Your task to perform on an android device: open a bookmark in the chrome app Image 0: 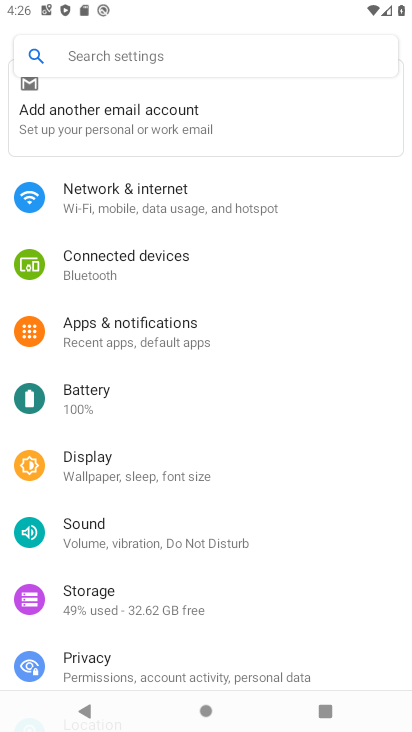
Step 0: press home button
Your task to perform on an android device: open a bookmark in the chrome app Image 1: 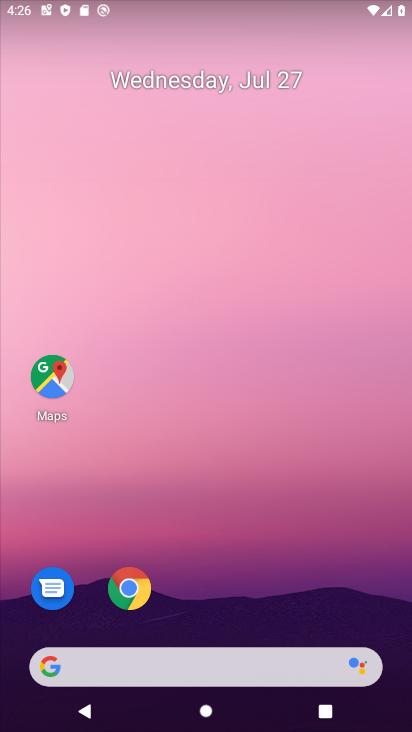
Step 1: drag from (243, 719) to (243, 265)
Your task to perform on an android device: open a bookmark in the chrome app Image 2: 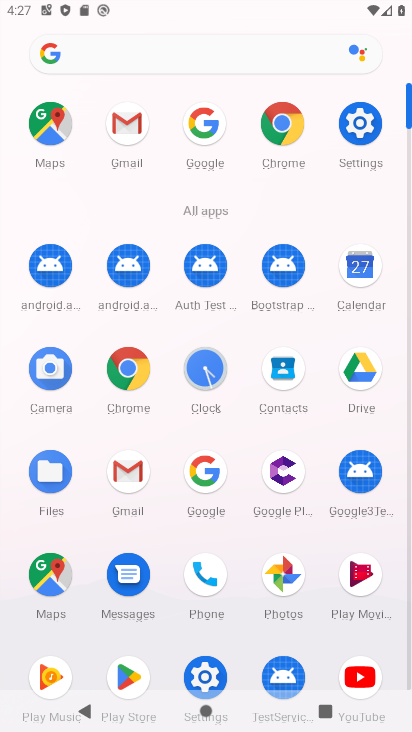
Step 2: click (135, 375)
Your task to perform on an android device: open a bookmark in the chrome app Image 3: 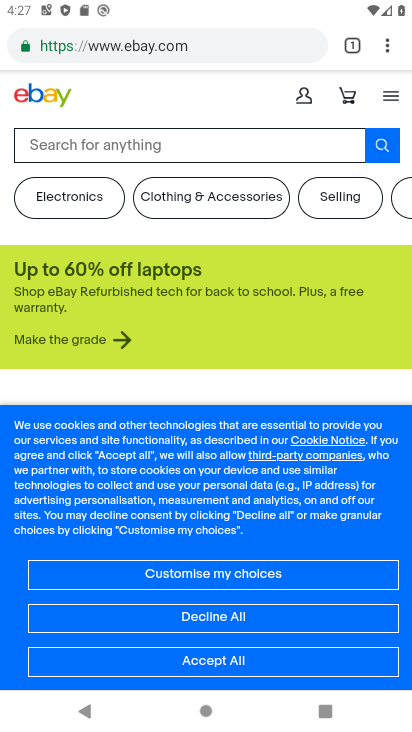
Step 3: click (388, 51)
Your task to perform on an android device: open a bookmark in the chrome app Image 4: 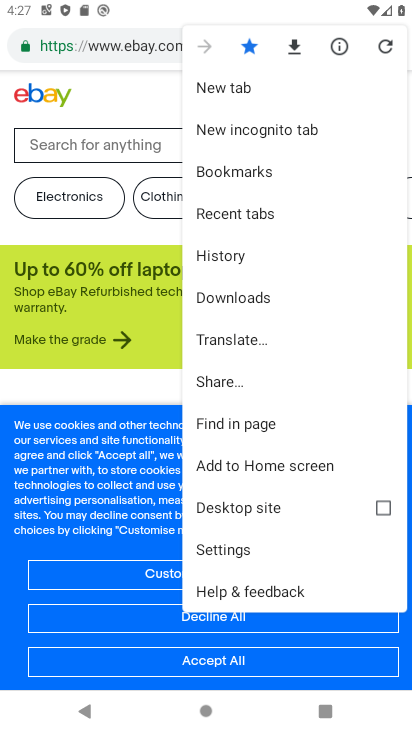
Step 4: click (238, 175)
Your task to perform on an android device: open a bookmark in the chrome app Image 5: 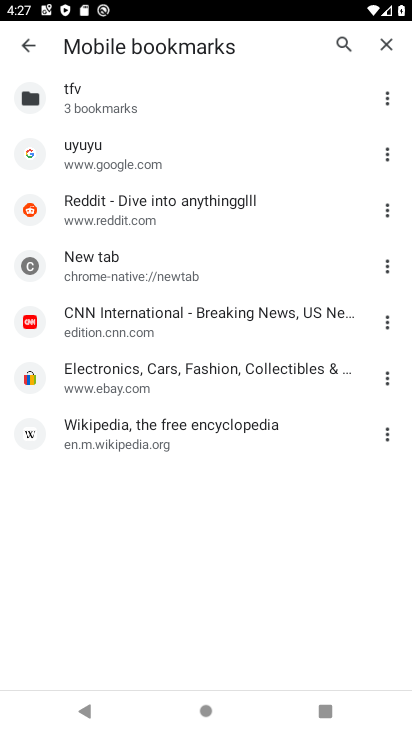
Step 5: click (146, 309)
Your task to perform on an android device: open a bookmark in the chrome app Image 6: 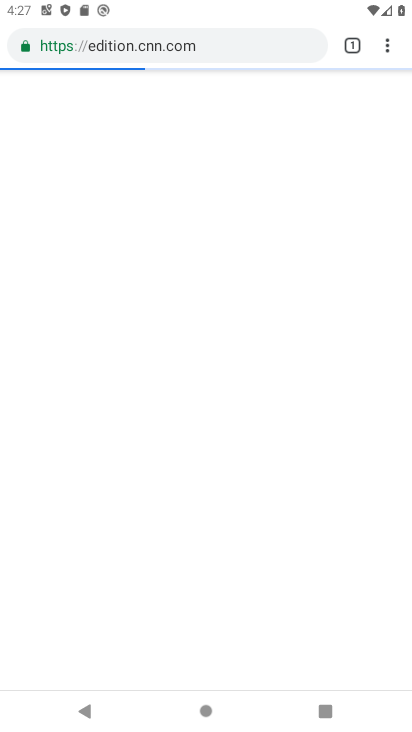
Step 6: task complete